Your task to perform on an android device: Go to Google maps Image 0: 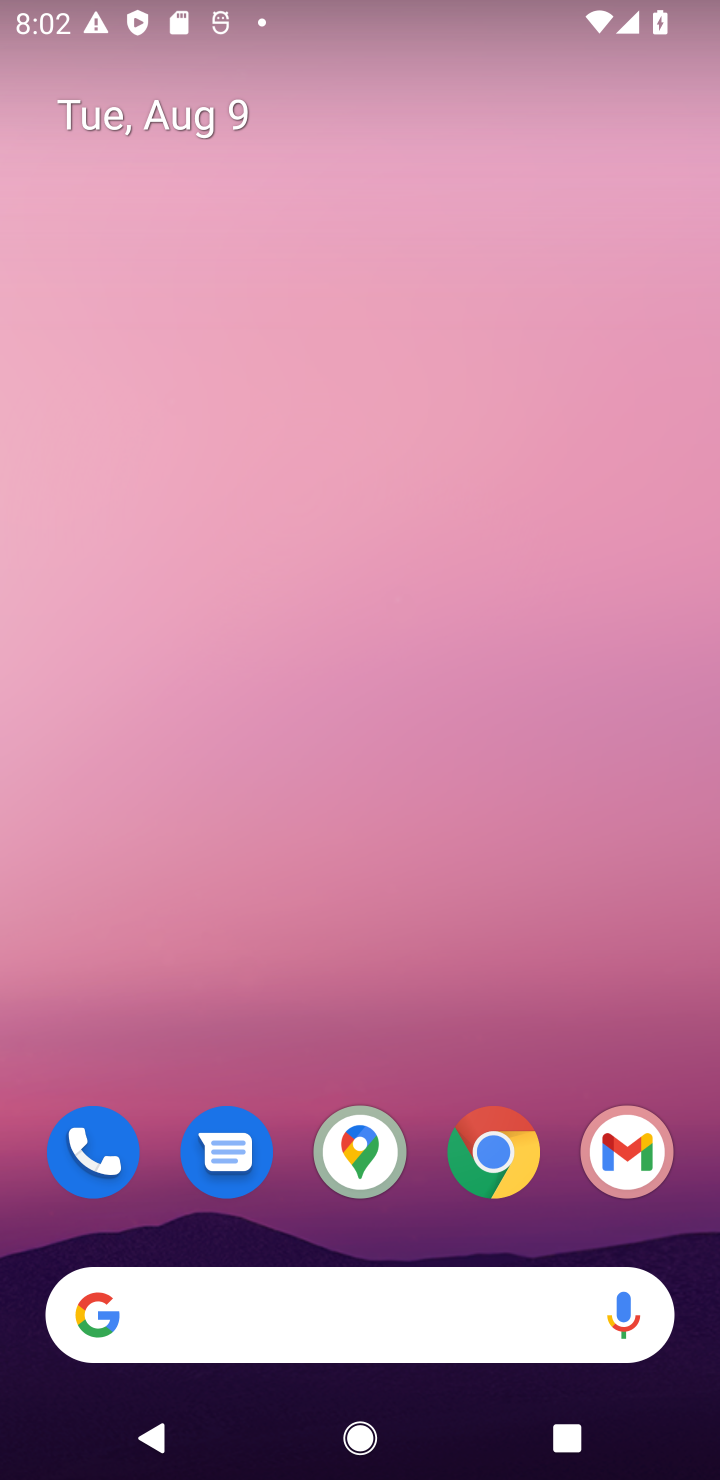
Step 0: click (384, 1149)
Your task to perform on an android device: Go to Google maps Image 1: 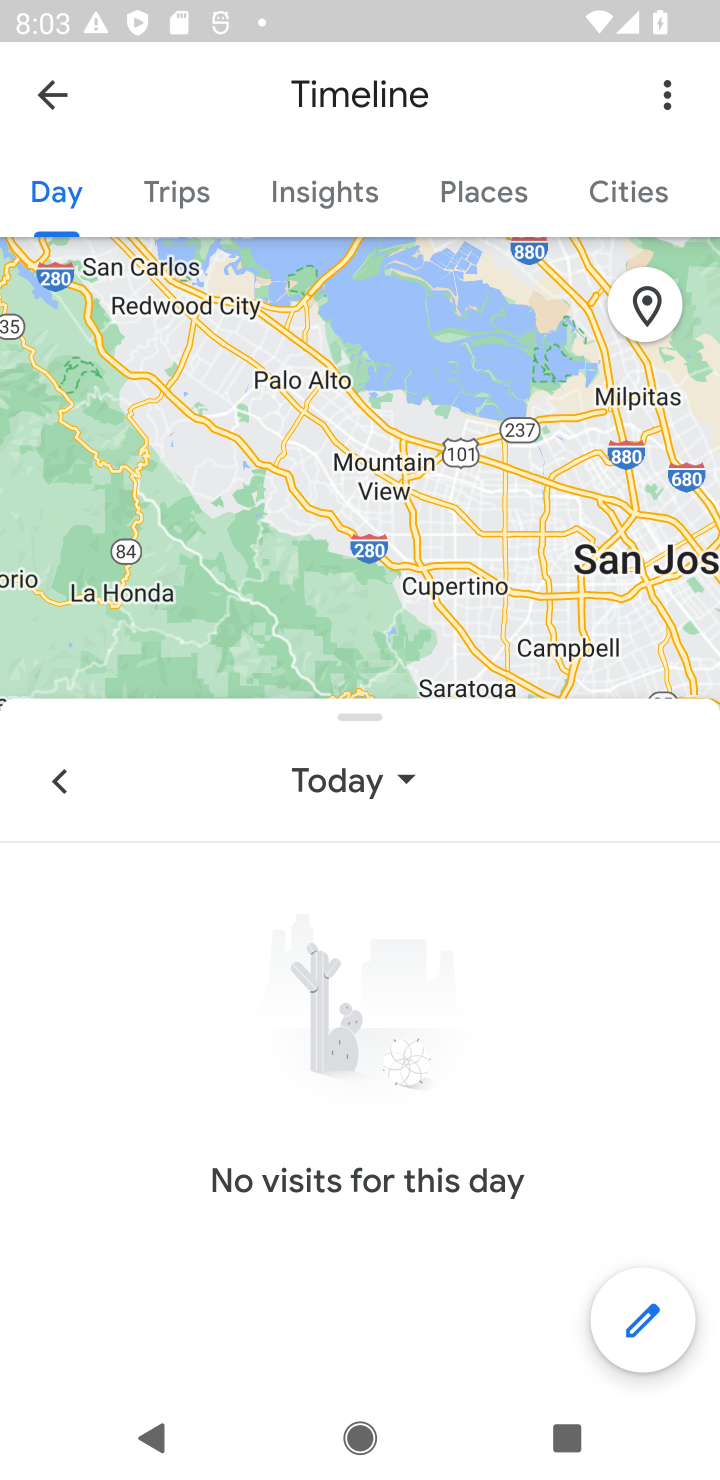
Step 1: task complete